Your task to perform on an android device: check the backup settings in the google photos Image 0: 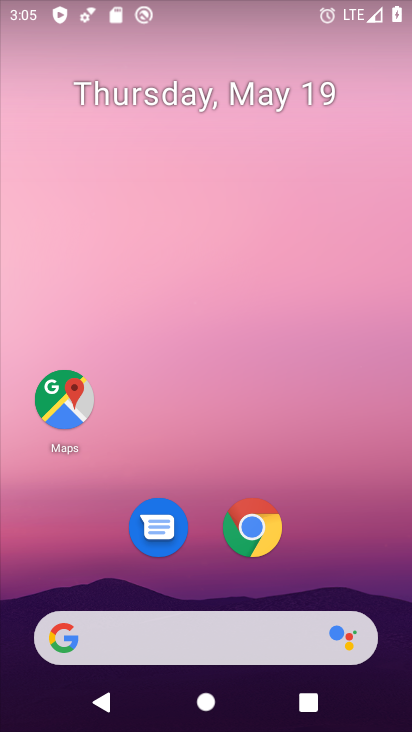
Step 0: drag from (180, 490) to (309, 81)
Your task to perform on an android device: check the backup settings in the google photos Image 1: 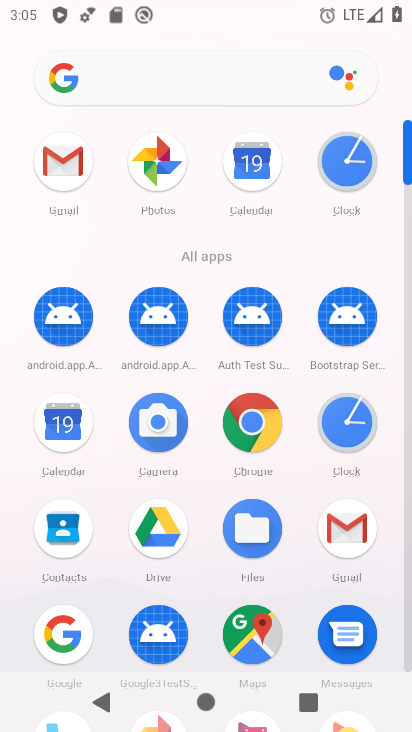
Step 1: drag from (212, 618) to (374, 8)
Your task to perform on an android device: check the backup settings in the google photos Image 2: 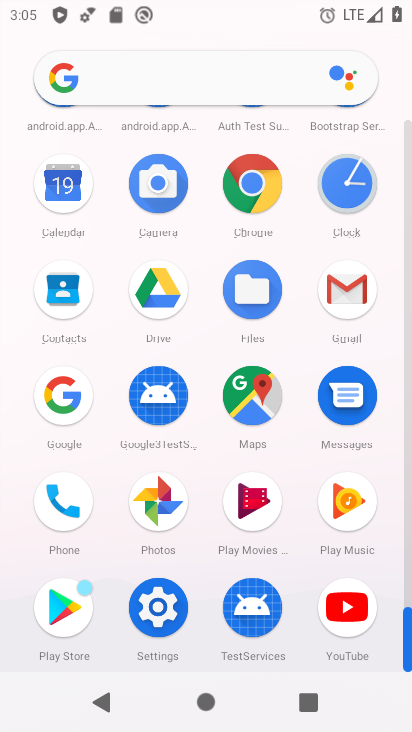
Step 2: click (155, 504)
Your task to perform on an android device: check the backup settings in the google photos Image 3: 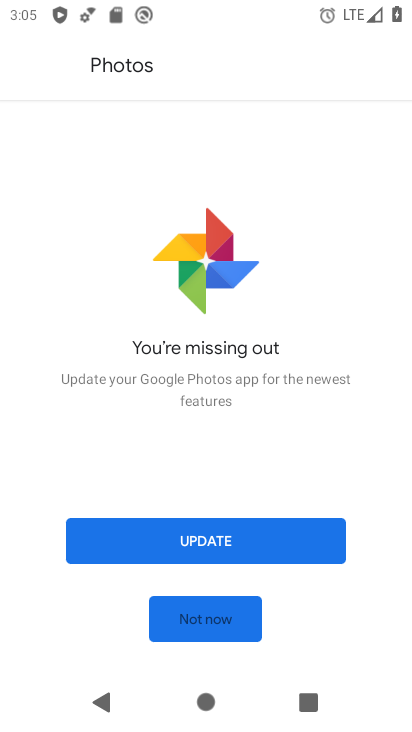
Step 3: click (166, 619)
Your task to perform on an android device: check the backup settings in the google photos Image 4: 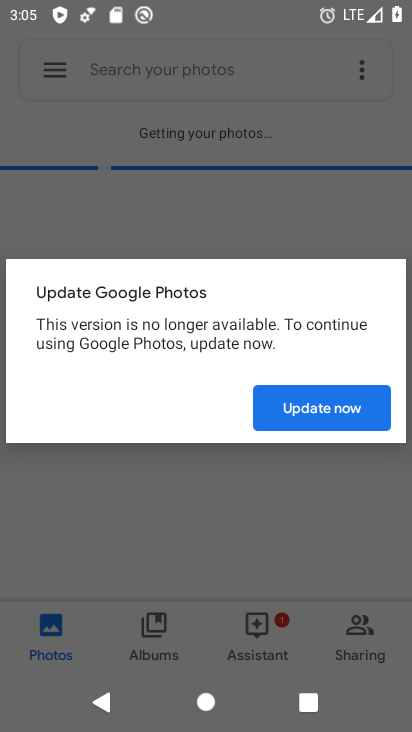
Step 4: click (370, 404)
Your task to perform on an android device: check the backup settings in the google photos Image 5: 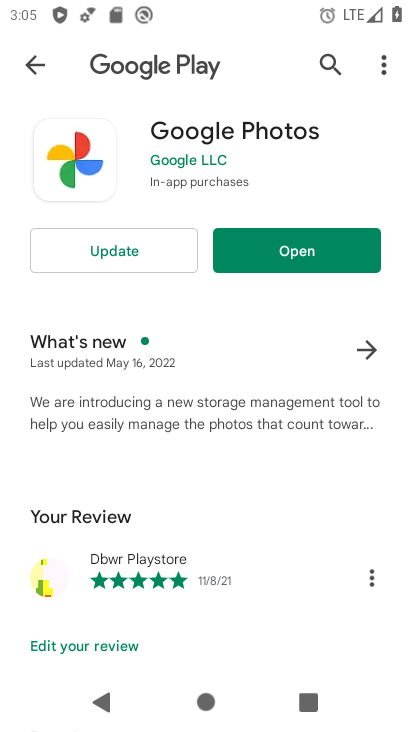
Step 5: click (280, 254)
Your task to perform on an android device: check the backup settings in the google photos Image 6: 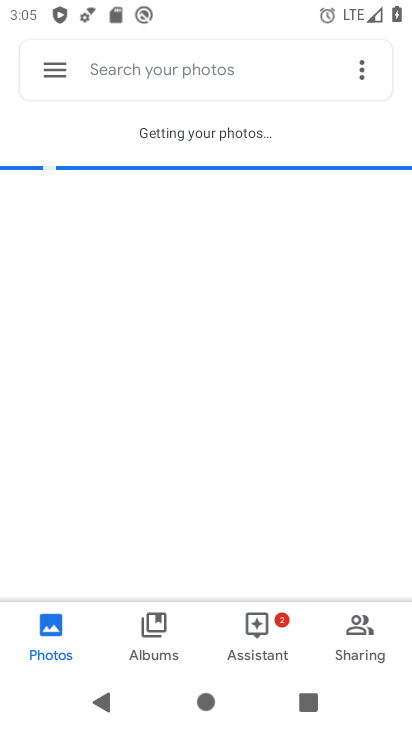
Step 6: click (58, 71)
Your task to perform on an android device: check the backup settings in the google photos Image 7: 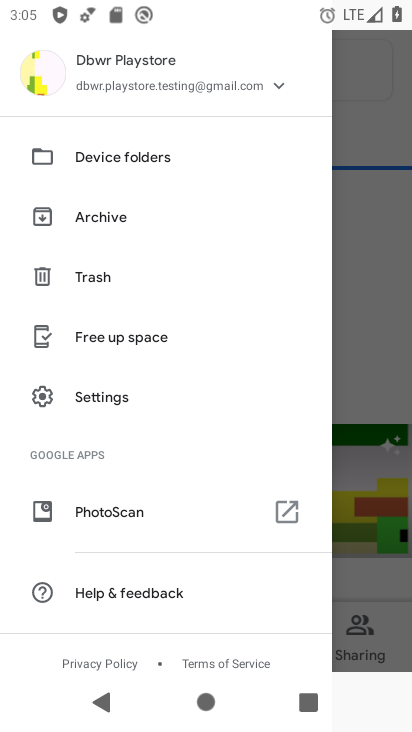
Step 7: click (91, 399)
Your task to perform on an android device: check the backup settings in the google photos Image 8: 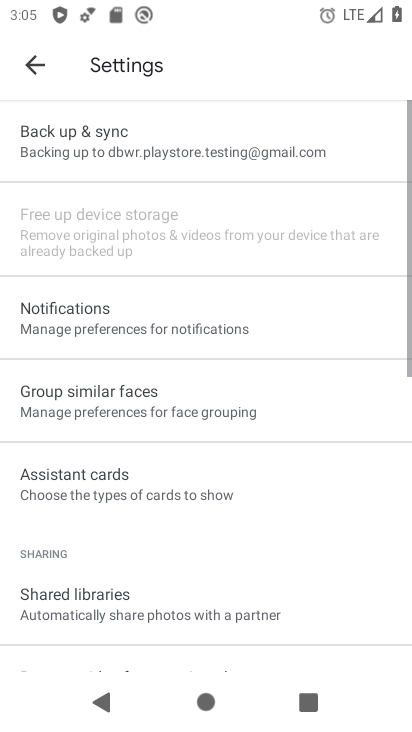
Step 8: click (64, 132)
Your task to perform on an android device: check the backup settings in the google photos Image 9: 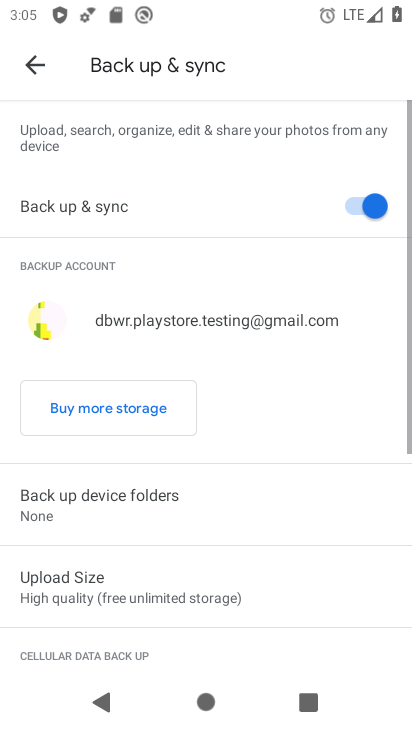
Step 9: task complete